Your task to perform on an android device: Add "razer deathadder" to the cart on target.com, then select checkout. Image 0: 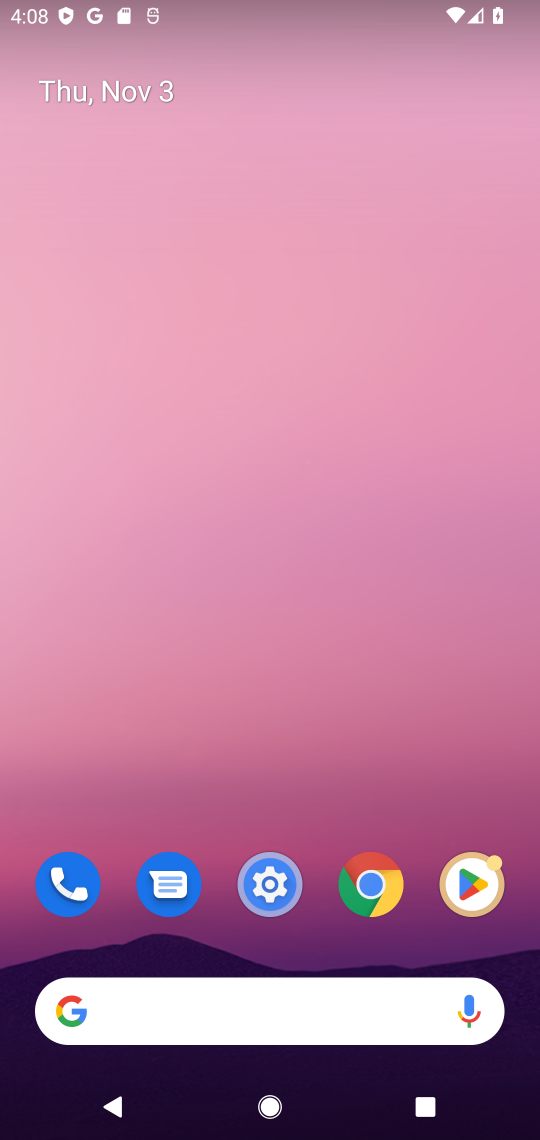
Step 0: press home button
Your task to perform on an android device: Add "razer deathadder" to the cart on target.com, then select checkout. Image 1: 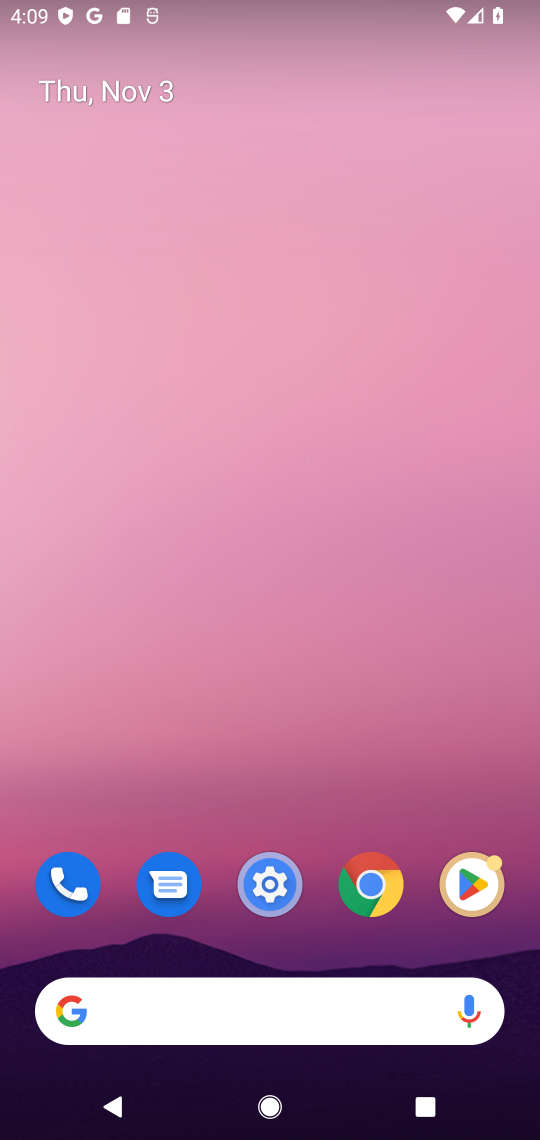
Step 1: click (100, 1000)
Your task to perform on an android device: Add "razer deathadder" to the cart on target.com, then select checkout. Image 2: 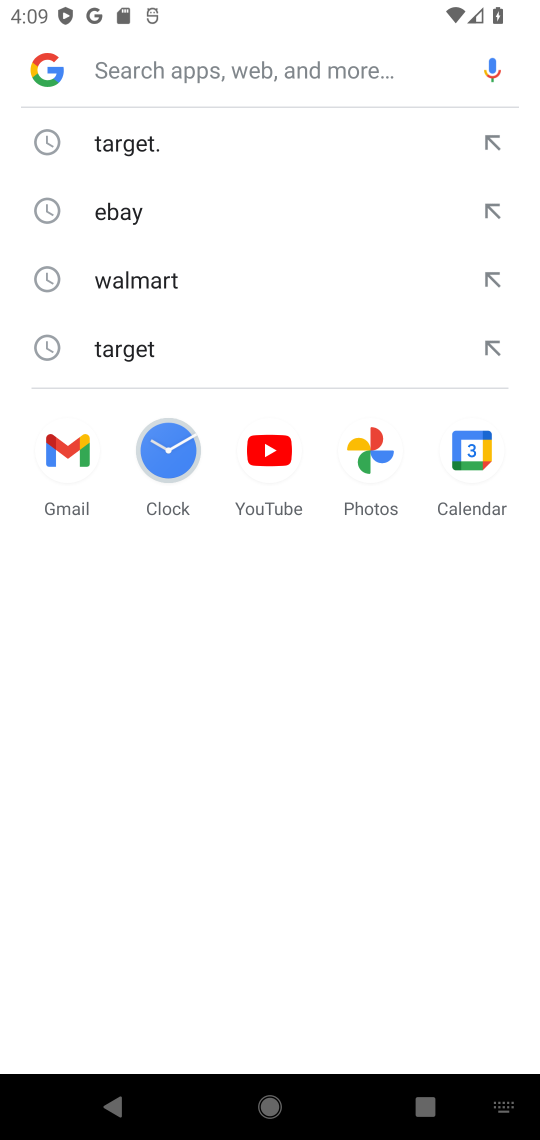
Step 2: type "target.com"
Your task to perform on an android device: Add "razer deathadder" to the cart on target.com, then select checkout. Image 3: 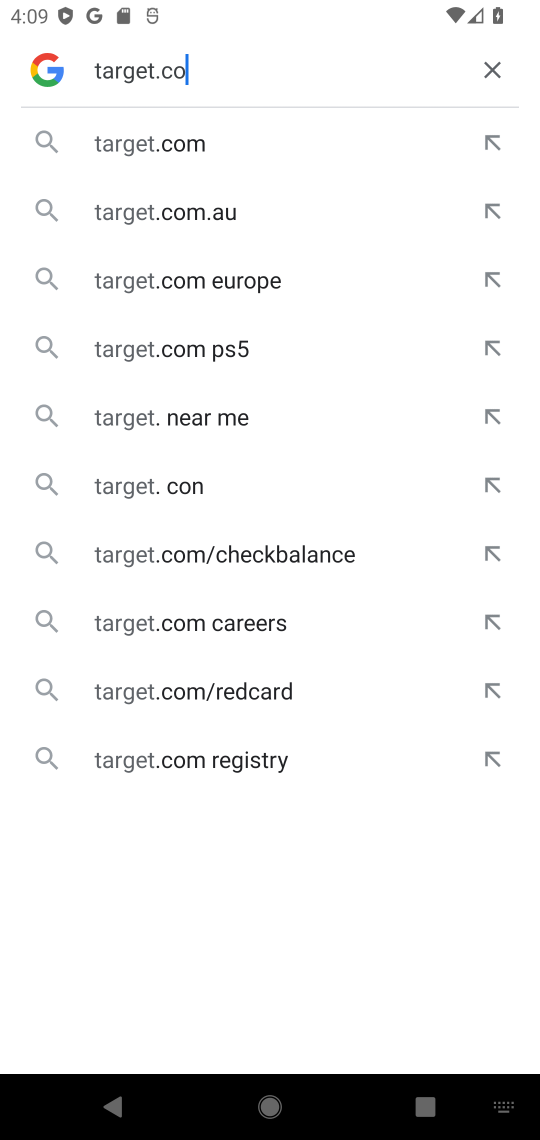
Step 3: press enter
Your task to perform on an android device: Add "razer deathadder" to the cart on target.com, then select checkout. Image 4: 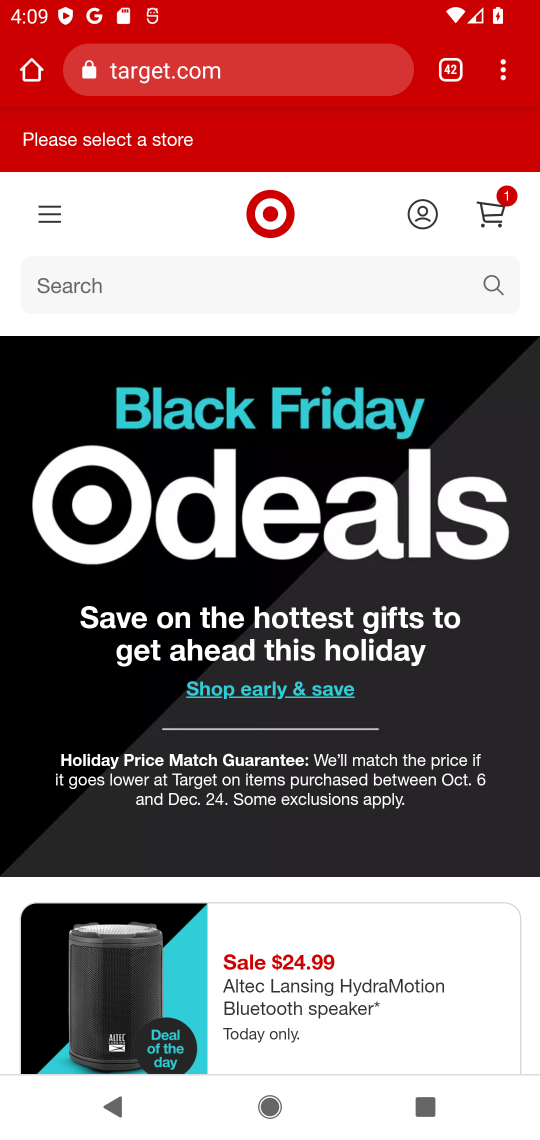
Step 4: click (117, 279)
Your task to perform on an android device: Add "razer deathadder" to the cart on target.com, then select checkout. Image 5: 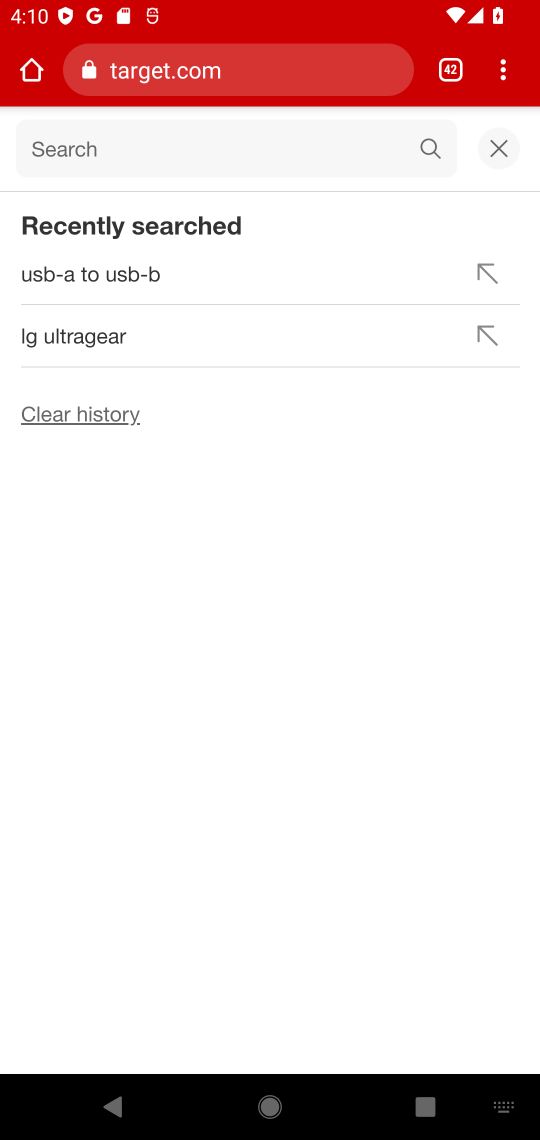
Step 5: type "razer deathadder"
Your task to perform on an android device: Add "razer deathadder" to the cart on target.com, then select checkout. Image 6: 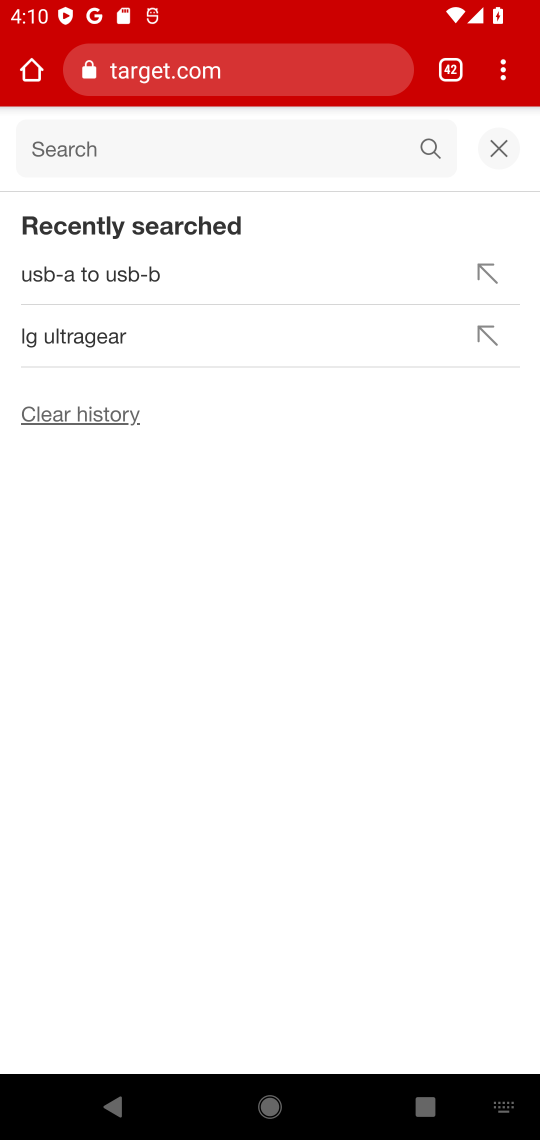
Step 6: press enter
Your task to perform on an android device: Add "razer deathadder" to the cart on target.com, then select checkout. Image 7: 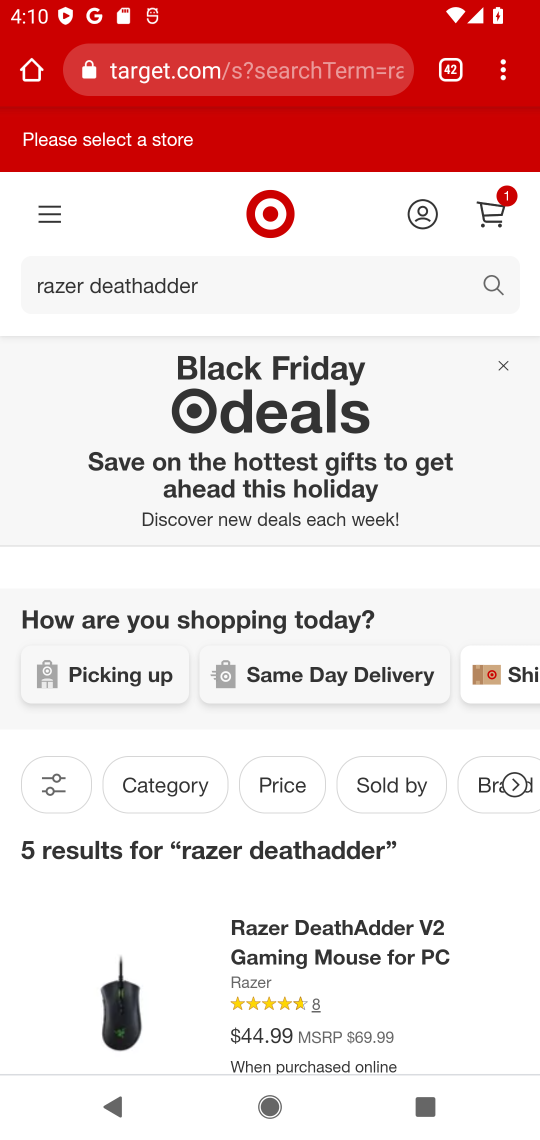
Step 7: drag from (394, 959) to (375, 710)
Your task to perform on an android device: Add "razer deathadder" to the cart on target.com, then select checkout. Image 8: 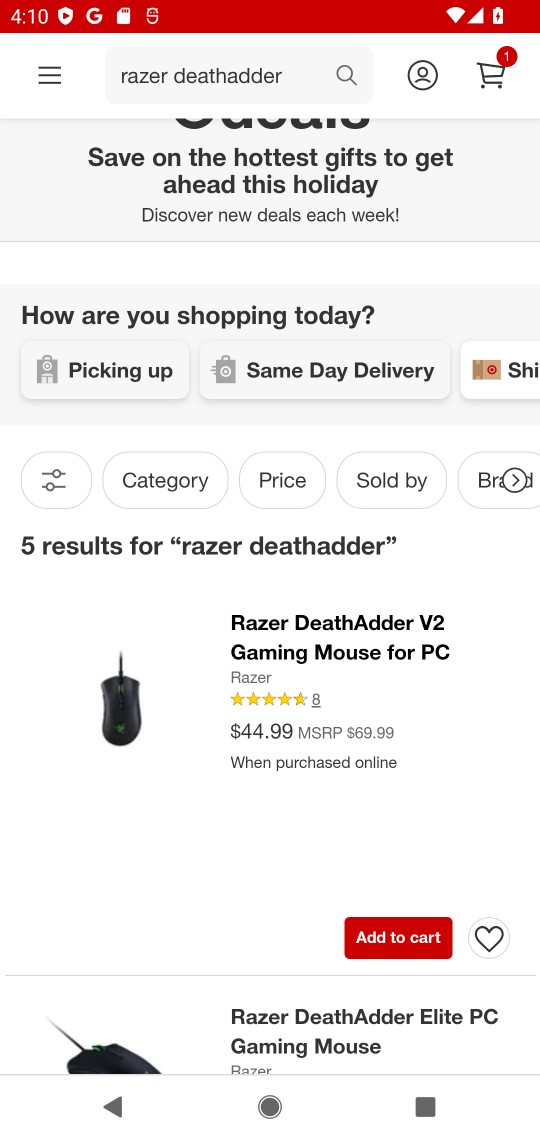
Step 8: click (388, 934)
Your task to perform on an android device: Add "razer deathadder" to the cart on target.com, then select checkout. Image 9: 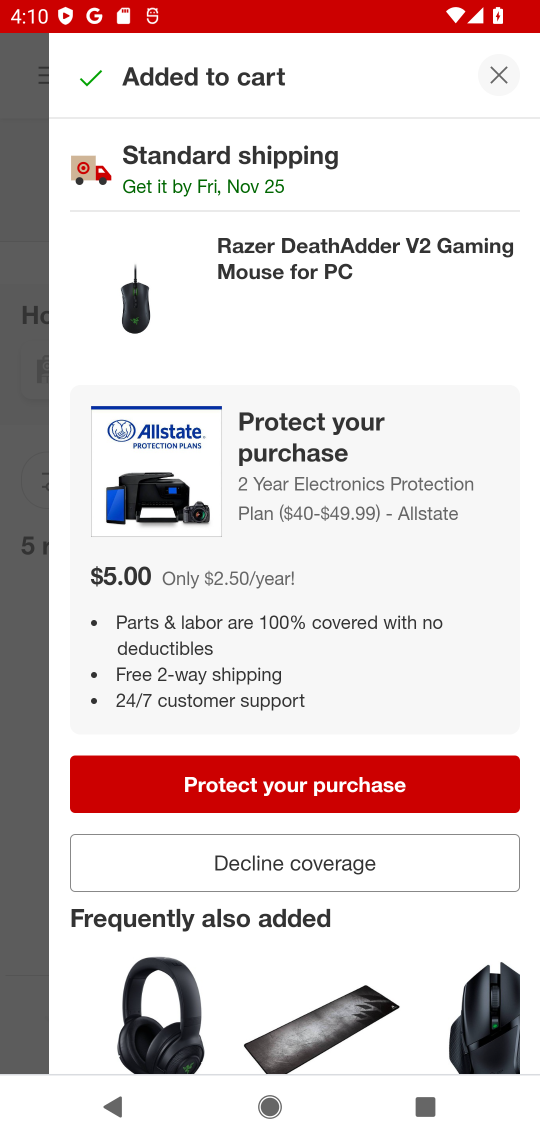
Step 9: click (344, 779)
Your task to perform on an android device: Add "razer deathadder" to the cart on target.com, then select checkout. Image 10: 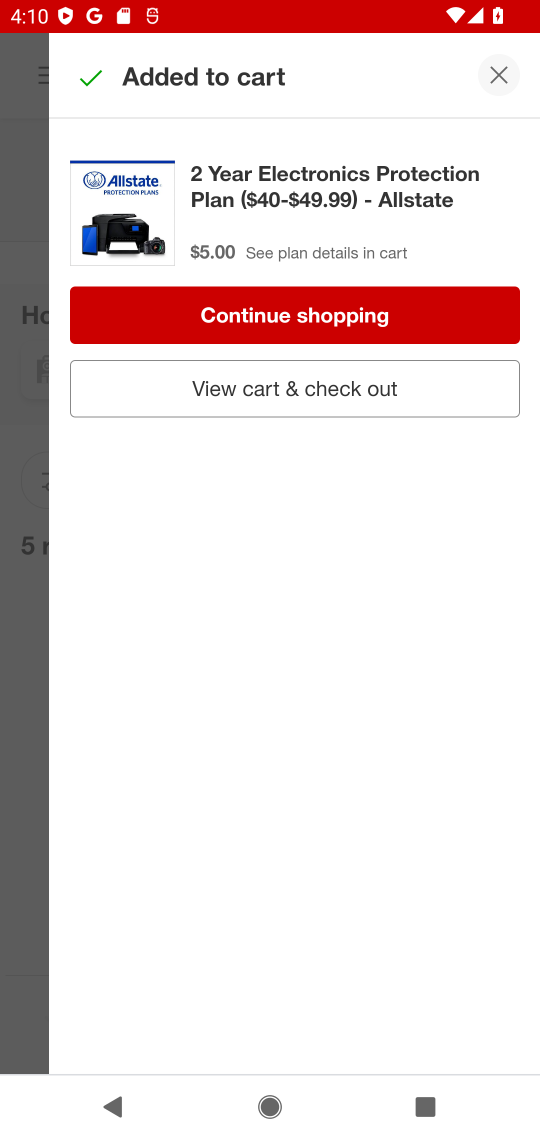
Step 10: click (300, 382)
Your task to perform on an android device: Add "razer deathadder" to the cart on target.com, then select checkout. Image 11: 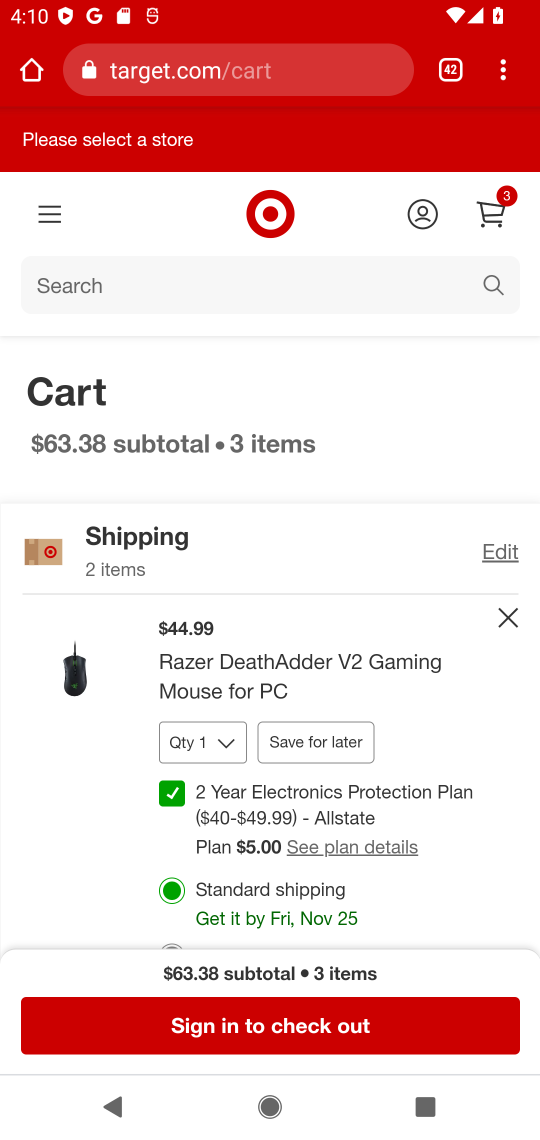
Step 11: click (265, 1037)
Your task to perform on an android device: Add "razer deathadder" to the cart on target.com, then select checkout. Image 12: 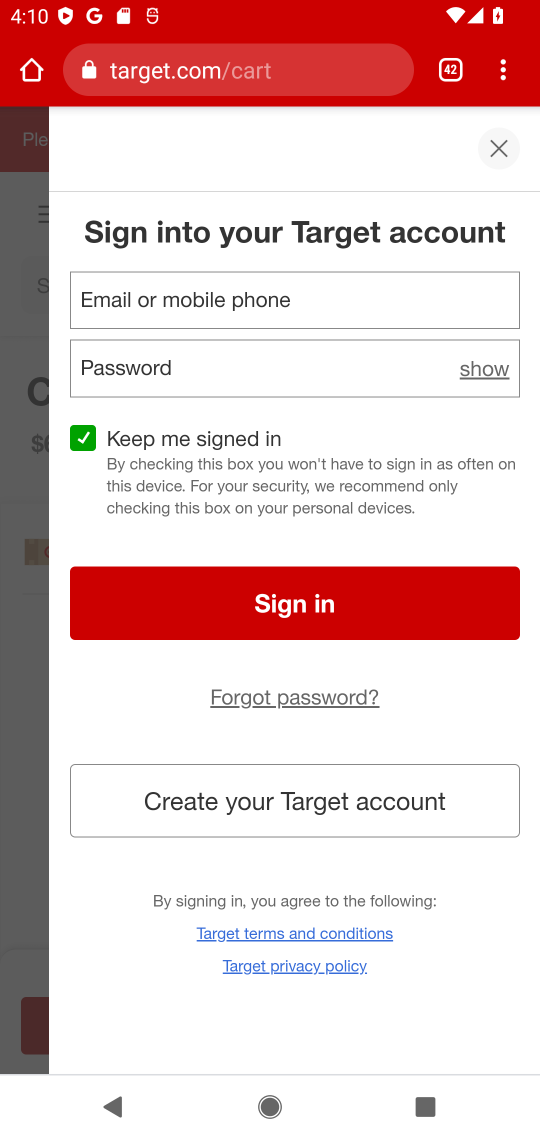
Step 12: task complete